Your task to perform on an android device: change notification settings in the gmail app Image 0: 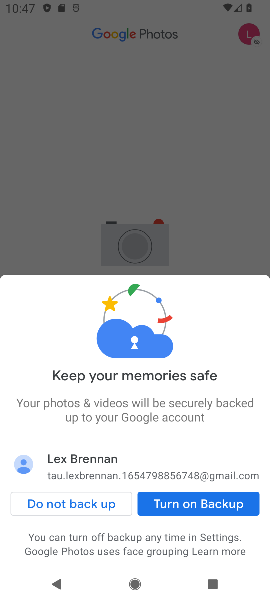
Step 0: press back button
Your task to perform on an android device: change notification settings in the gmail app Image 1: 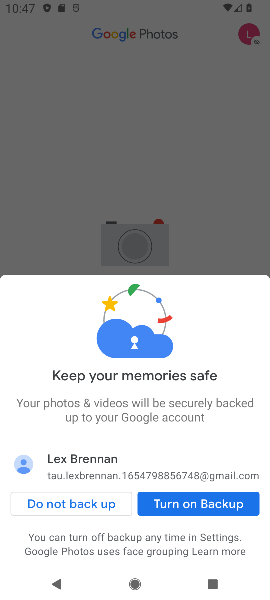
Step 1: click (169, 167)
Your task to perform on an android device: change notification settings in the gmail app Image 2: 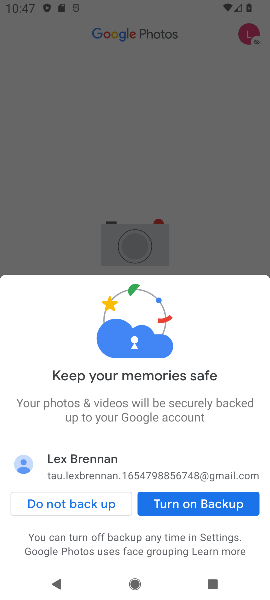
Step 2: click (175, 165)
Your task to perform on an android device: change notification settings in the gmail app Image 3: 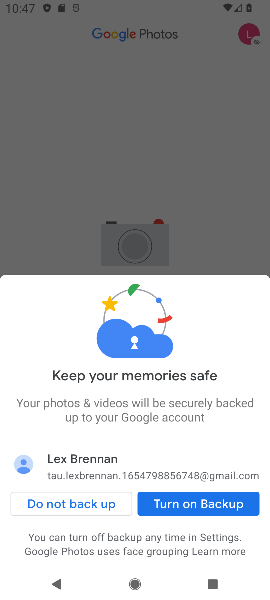
Step 3: click (176, 165)
Your task to perform on an android device: change notification settings in the gmail app Image 4: 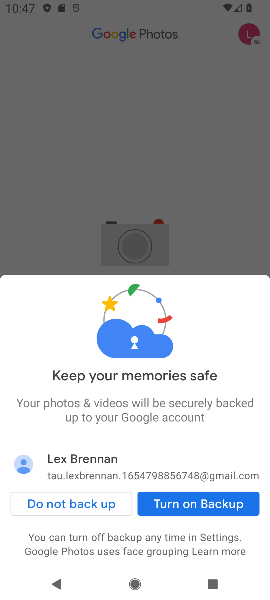
Step 4: click (203, 176)
Your task to perform on an android device: change notification settings in the gmail app Image 5: 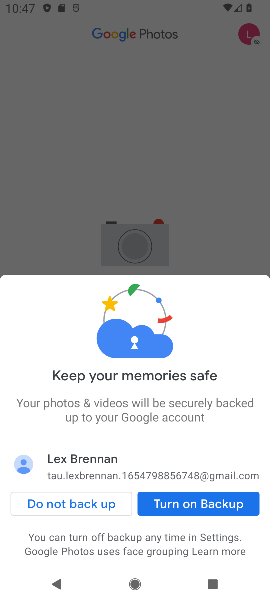
Step 5: click (208, 185)
Your task to perform on an android device: change notification settings in the gmail app Image 6: 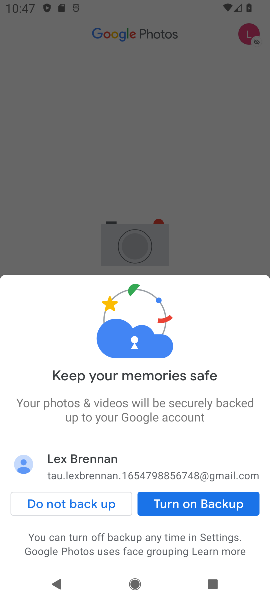
Step 6: click (213, 188)
Your task to perform on an android device: change notification settings in the gmail app Image 7: 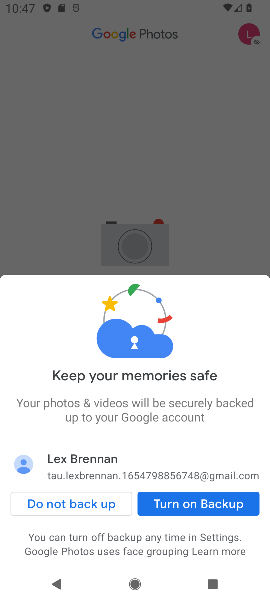
Step 7: click (222, 205)
Your task to perform on an android device: change notification settings in the gmail app Image 8: 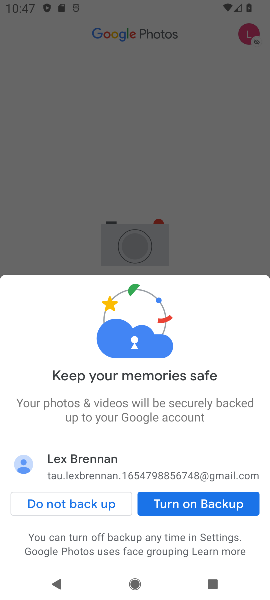
Step 8: press home button
Your task to perform on an android device: change notification settings in the gmail app Image 9: 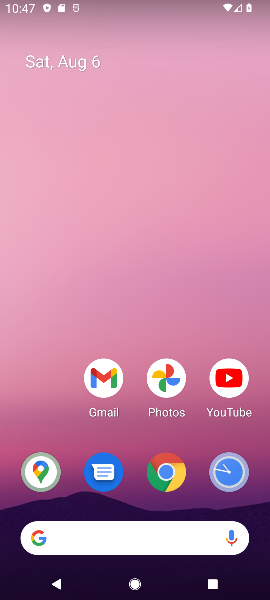
Step 9: press back button
Your task to perform on an android device: change notification settings in the gmail app Image 10: 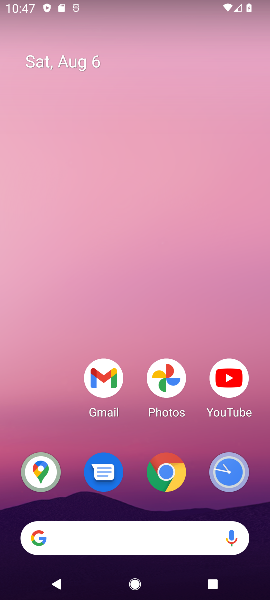
Step 10: drag from (166, 564) to (89, 117)
Your task to perform on an android device: change notification settings in the gmail app Image 11: 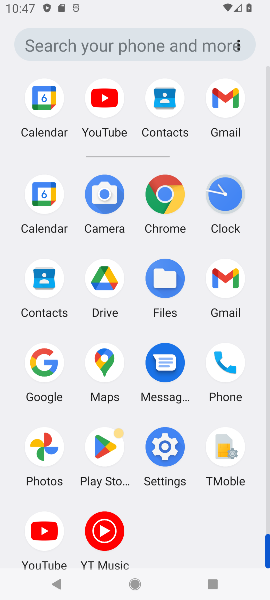
Step 11: drag from (146, 519) to (71, 121)
Your task to perform on an android device: change notification settings in the gmail app Image 12: 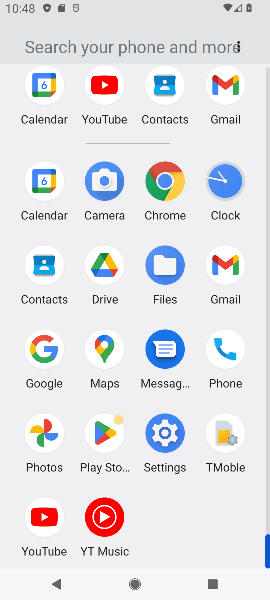
Step 12: click (224, 274)
Your task to perform on an android device: change notification settings in the gmail app Image 13: 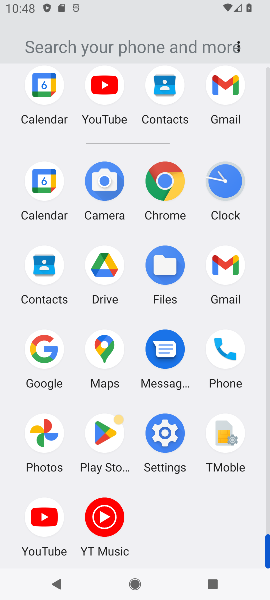
Step 13: click (224, 274)
Your task to perform on an android device: change notification settings in the gmail app Image 14: 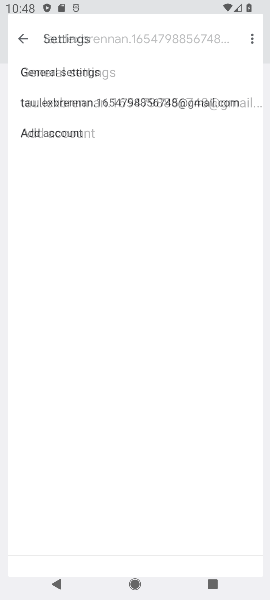
Step 14: click (224, 273)
Your task to perform on an android device: change notification settings in the gmail app Image 15: 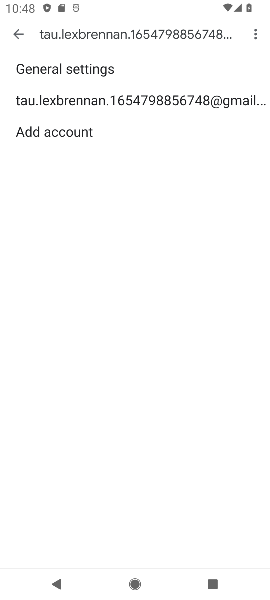
Step 15: click (231, 271)
Your task to perform on an android device: change notification settings in the gmail app Image 16: 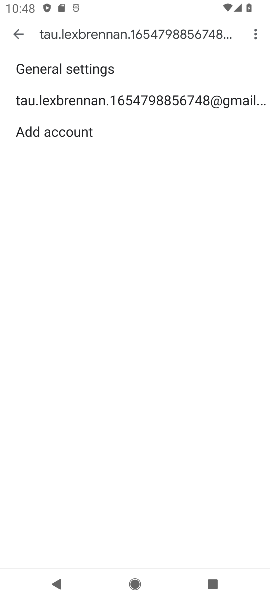
Step 16: click (62, 96)
Your task to perform on an android device: change notification settings in the gmail app Image 17: 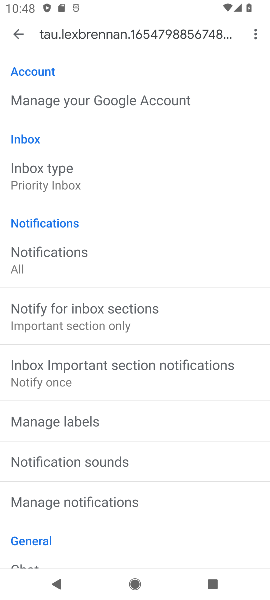
Step 17: click (39, 260)
Your task to perform on an android device: change notification settings in the gmail app Image 18: 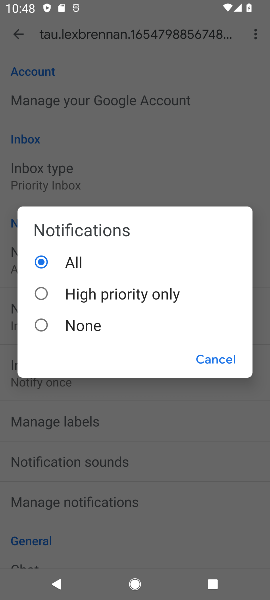
Step 18: click (34, 285)
Your task to perform on an android device: change notification settings in the gmail app Image 19: 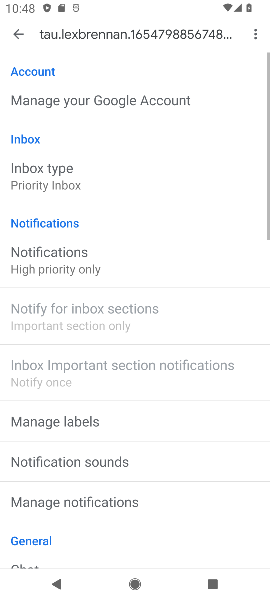
Step 19: task complete